Your task to perform on an android device: see creations saved in the google photos Image 0: 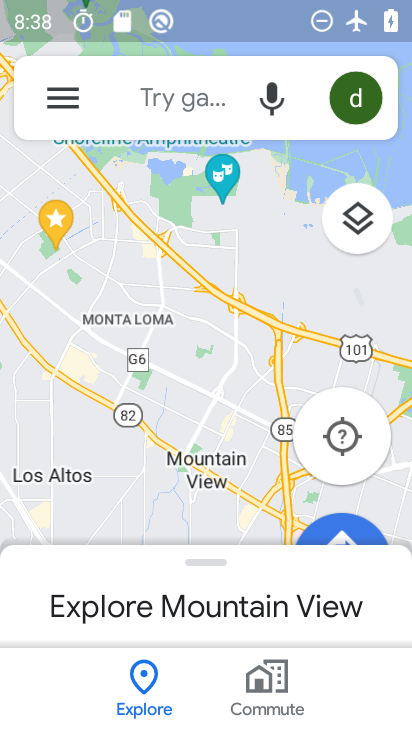
Step 0: press home button
Your task to perform on an android device: see creations saved in the google photos Image 1: 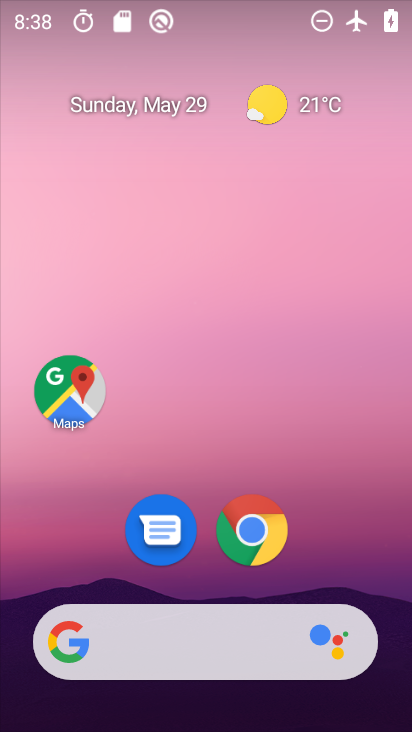
Step 1: drag from (261, 612) to (228, 159)
Your task to perform on an android device: see creations saved in the google photos Image 2: 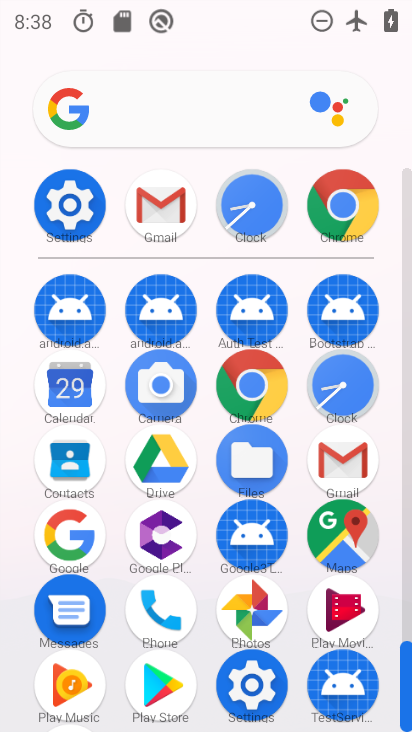
Step 2: click (248, 606)
Your task to perform on an android device: see creations saved in the google photos Image 3: 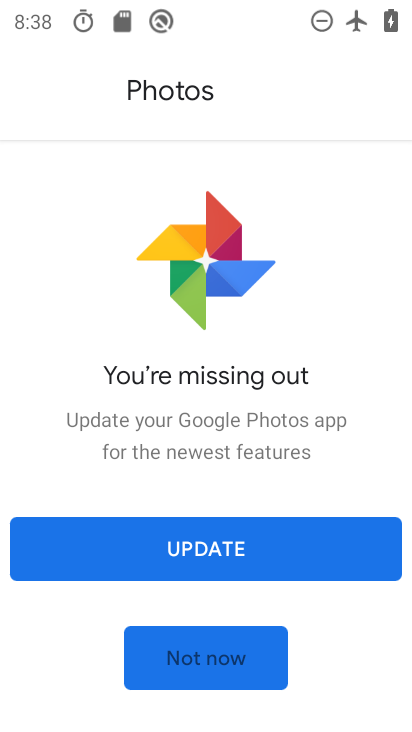
Step 3: click (272, 564)
Your task to perform on an android device: see creations saved in the google photos Image 4: 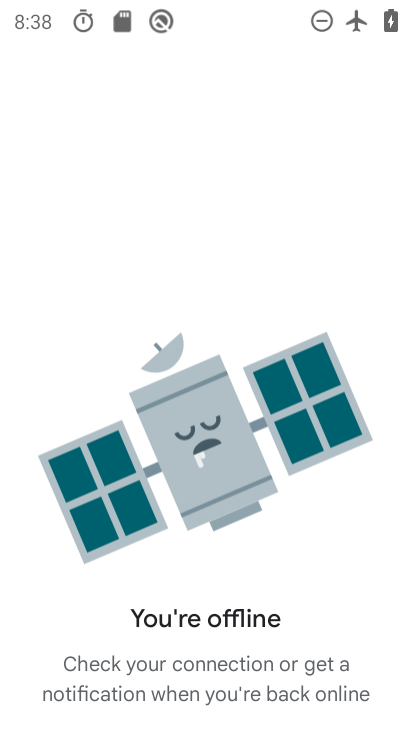
Step 4: press home button
Your task to perform on an android device: see creations saved in the google photos Image 5: 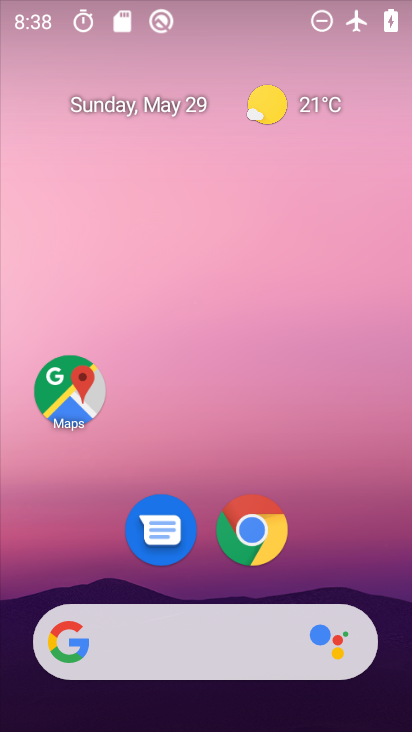
Step 5: drag from (247, 711) to (304, 130)
Your task to perform on an android device: see creations saved in the google photos Image 6: 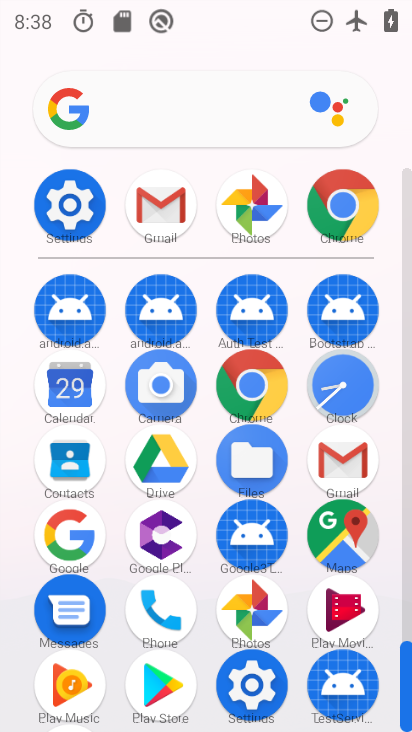
Step 6: click (85, 218)
Your task to perform on an android device: see creations saved in the google photos Image 7: 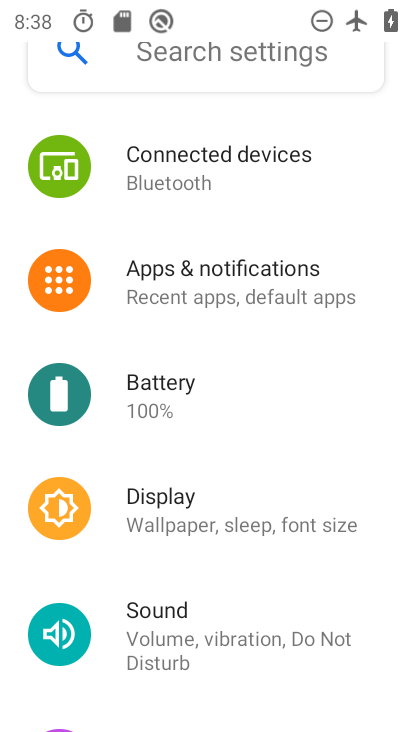
Step 7: drag from (196, 152) to (261, 372)
Your task to perform on an android device: see creations saved in the google photos Image 8: 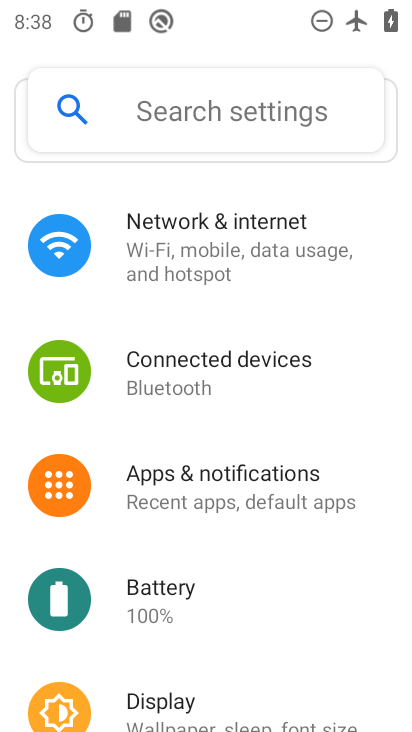
Step 8: drag from (194, 215) to (259, 469)
Your task to perform on an android device: see creations saved in the google photos Image 9: 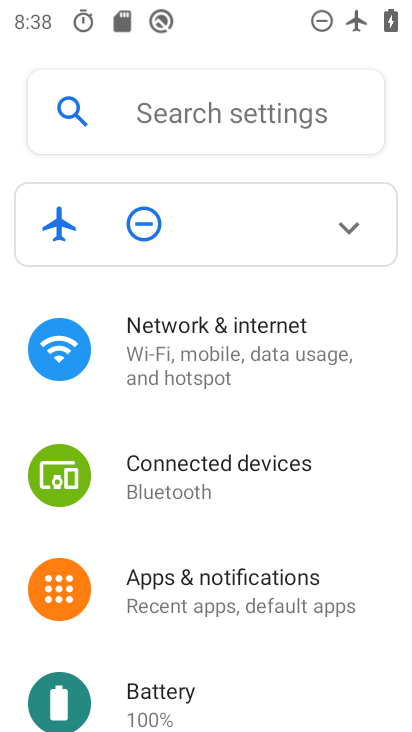
Step 9: click (342, 230)
Your task to perform on an android device: see creations saved in the google photos Image 10: 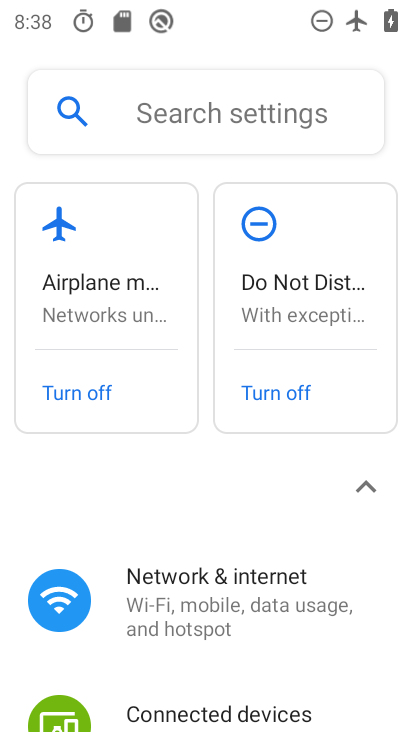
Step 10: click (82, 392)
Your task to perform on an android device: see creations saved in the google photos Image 11: 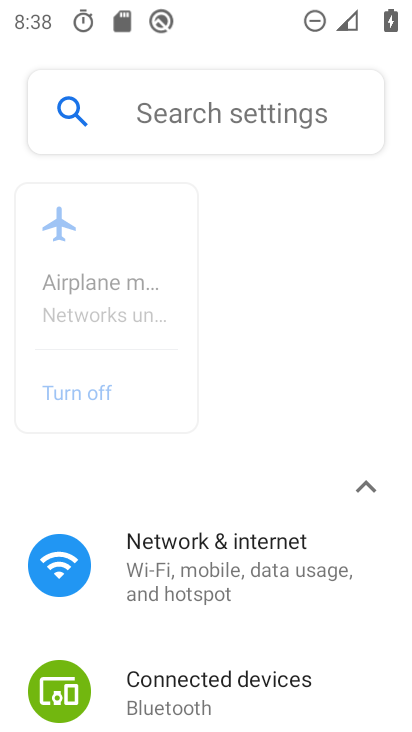
Step 11: click (260, 387)
Your task to perform on an android device: see creations saved in the google photos Image 12: 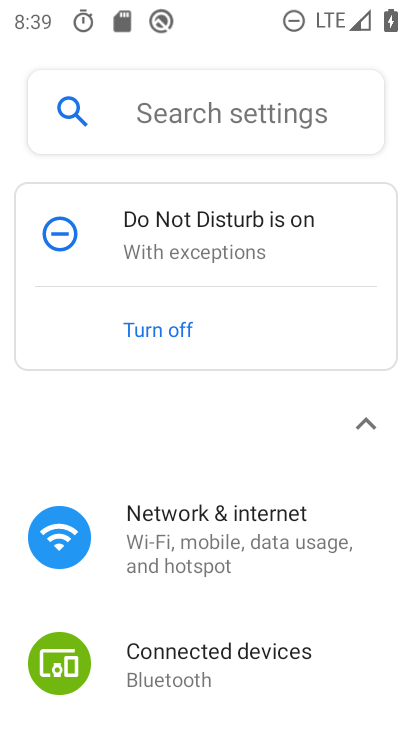
Step 12: press home button
Your task to perform on an android device: see creations saved in the google photos Image 13: 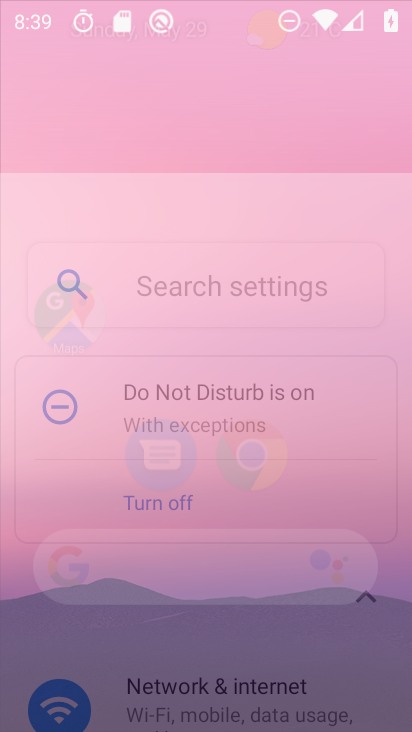
Step 13: press home button
Your task to perform on an android device: see creations saved in the google photos Image 14: 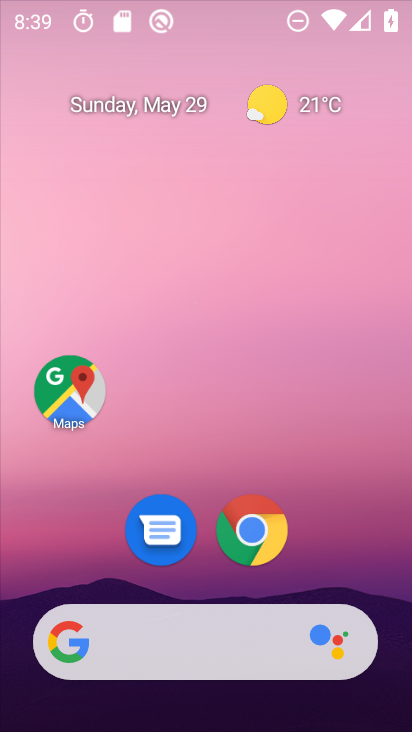
Step 14: drag from (265, 623) to (225, 167)
Your task to perform on an android device: see creations saved in the google photos Image 15: 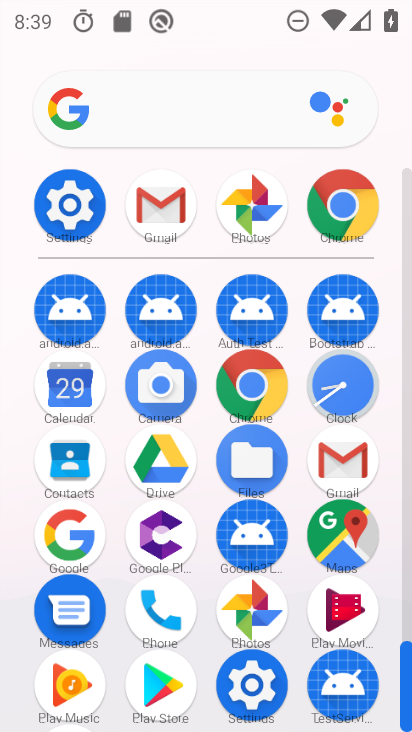
Step 15: click (264, 609)
Your task to perform on an android device: see creations saved in the google photos Image 16: 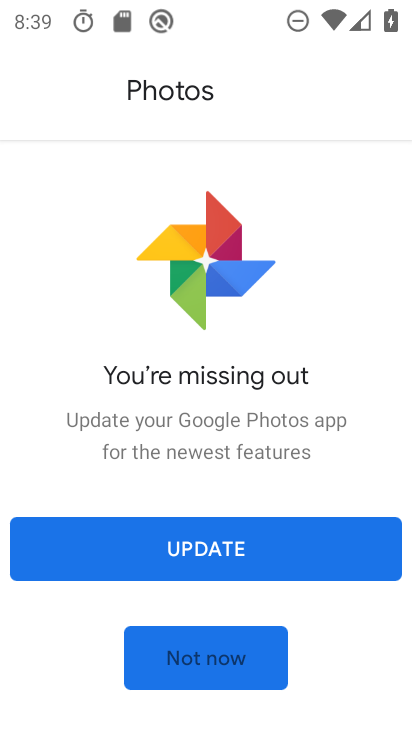
Step 16: click (221, 546)
Your task to perform on an android device: see creations saved in the google photos Image 17: 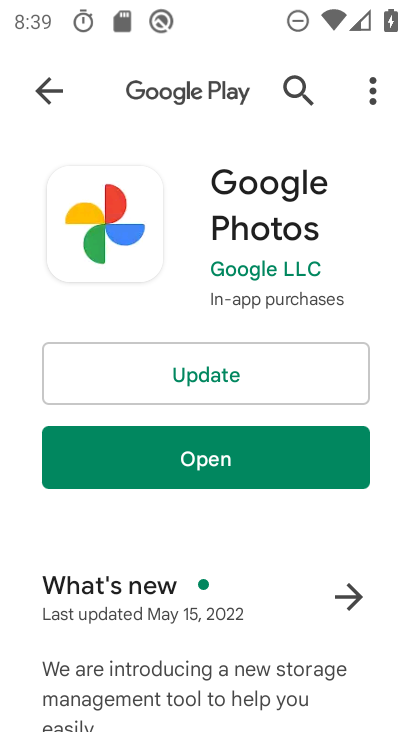
Step 17: click (204, 481)
Your task to perform on an android device: see creations saved in the google photos Image 18: 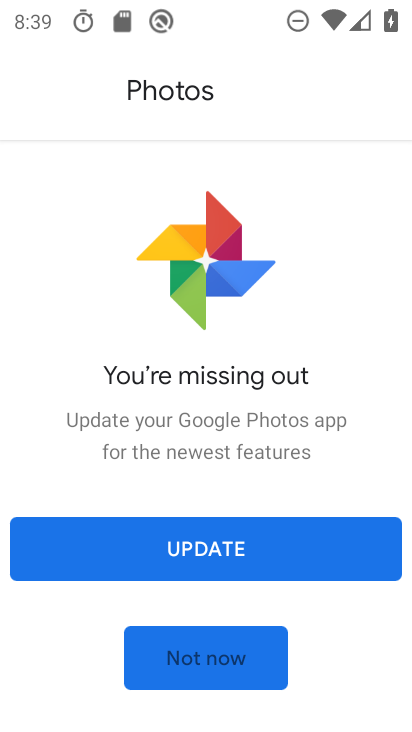
Step 18: click (227, 541)
Your task to perform on an android device: see creations saved in the google photos Image 19: 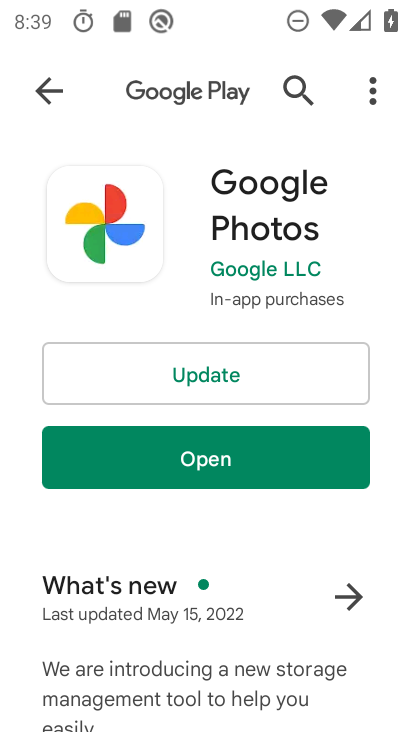
Step 19: click (242, 393)
Your task to perform on an android device: see creations saved in the google photos Image 20: 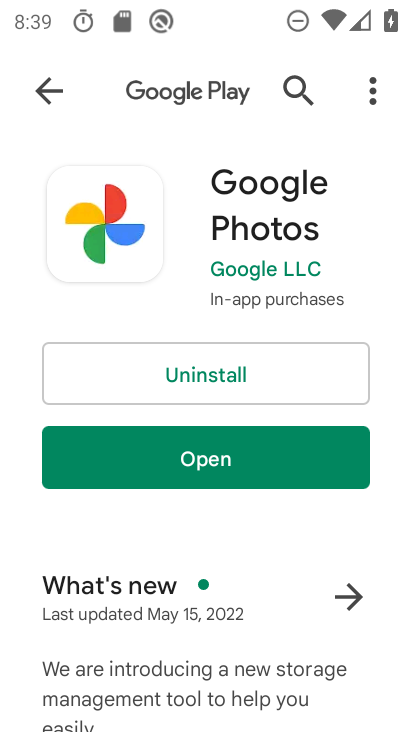
Step 20: click (199, 472)
Your task to perform on an android device: see creations saved in the google photos Image 21: 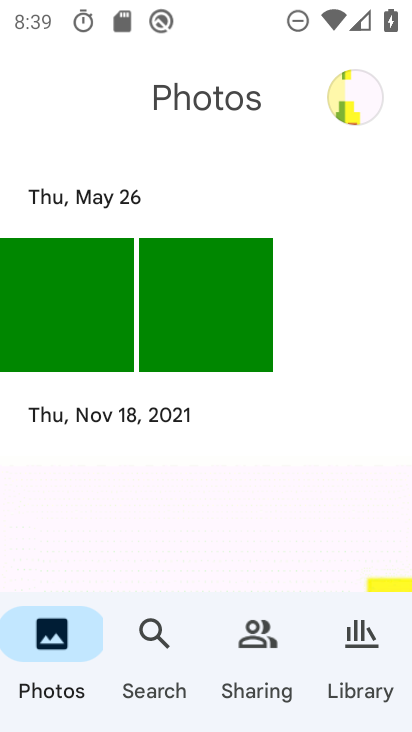
Step 21: click (97, 337)
Your task to perform on an android device: see creations saved in the google photos Image 22: 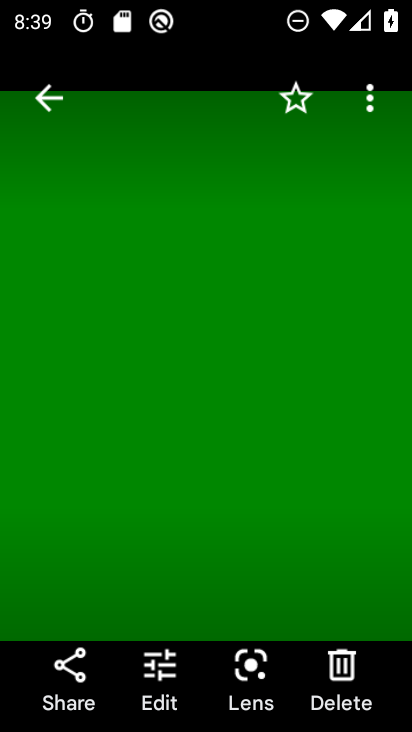
Step 22: click (385, 108)
Your task to perform on an android device: see creations saved in the google photos Image 23: 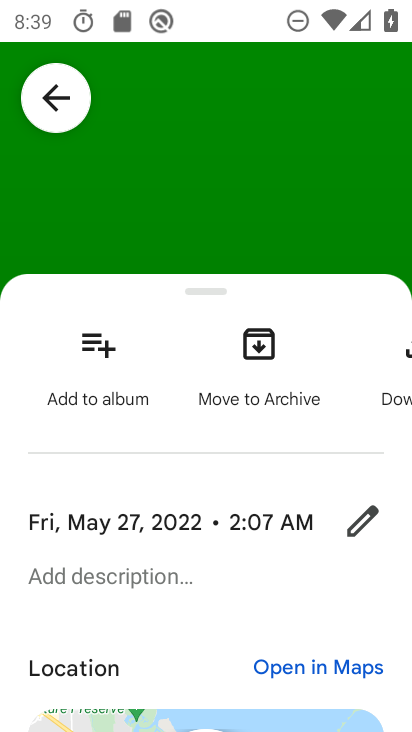
Step 23: task complete